Your task to perform on an android device: turn notification dots on Image 0: 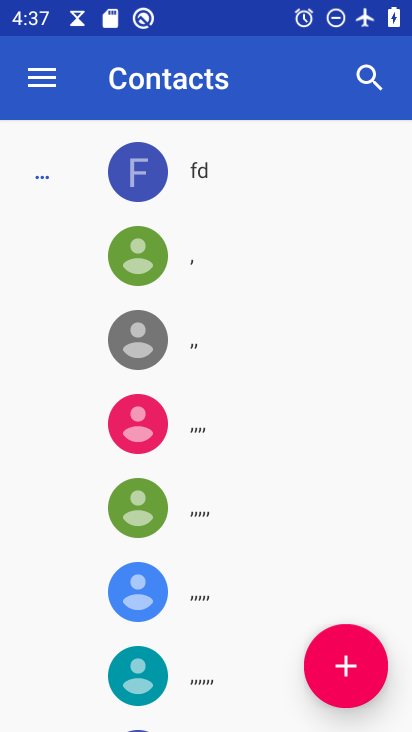
Step 0: press home button
Your task to perform on an android device: turn notification dots on Image 1: 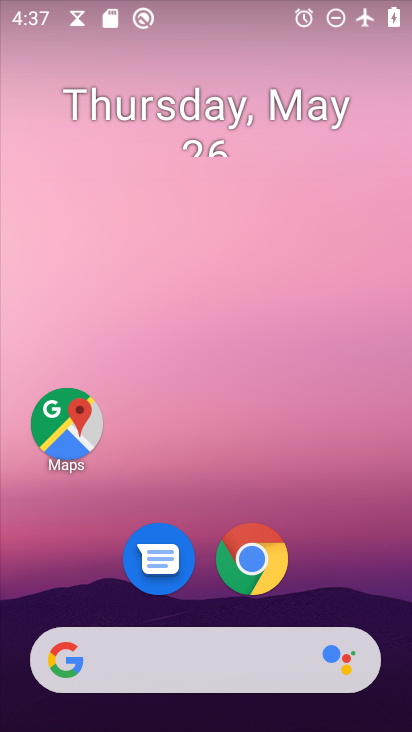
Step 1: drag from (339, 561) to (237, 11)
Your task to perform on an android device: turn notification dots on Image 2: 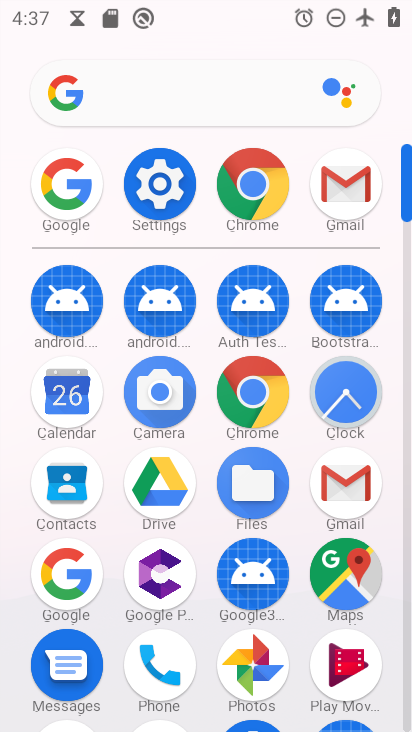
Step 2: click (158, 172)
Your task to perform on an android device: turn notification dots on Image 3: 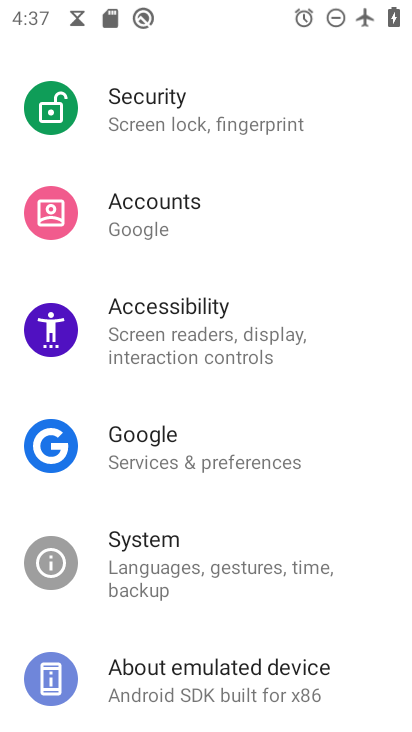
Step 3: drag from (288, 202) to (217, 637)
Your task to perform on an android device: turn notification dots on Image 4: 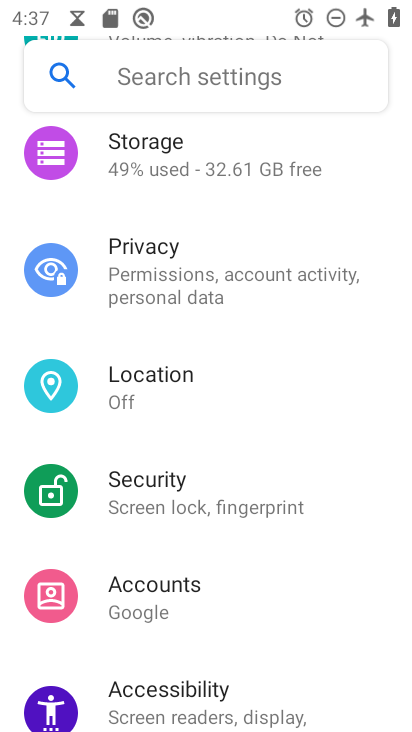
Step 4: drag from (262, 181) to (227, 599)
Your task to perform on an android device: turn notification dots on Image 5: 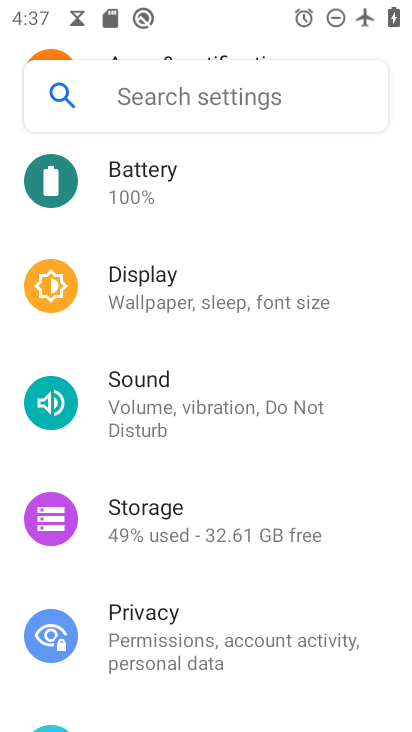
Step 5: drag from (238, 207) to (186, 654)
Your task to perform on an android device: turn notification dots on Image 6: 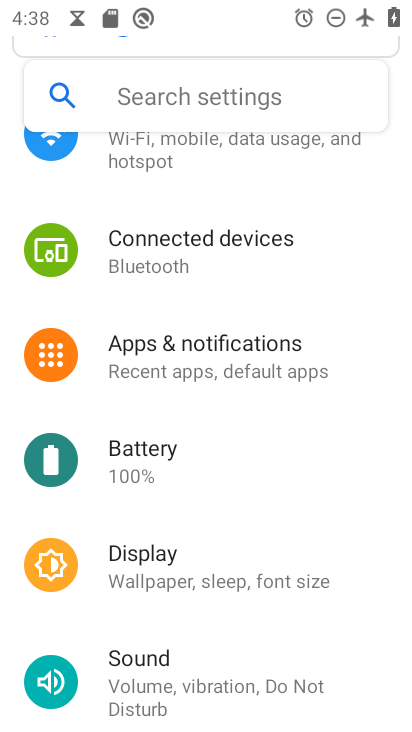
Step 6: click (225, 371)
Your task to perform on an android device: turn notification dots on Image 7: 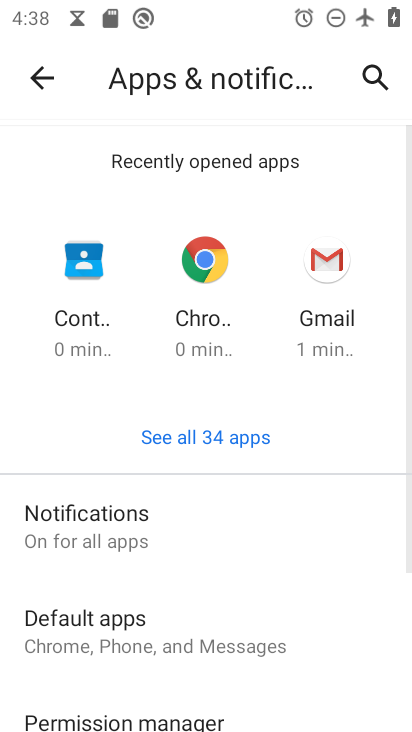
Step 7: click (197, 531)
Your task to perform on an android device: turn notification dots on Image 8: 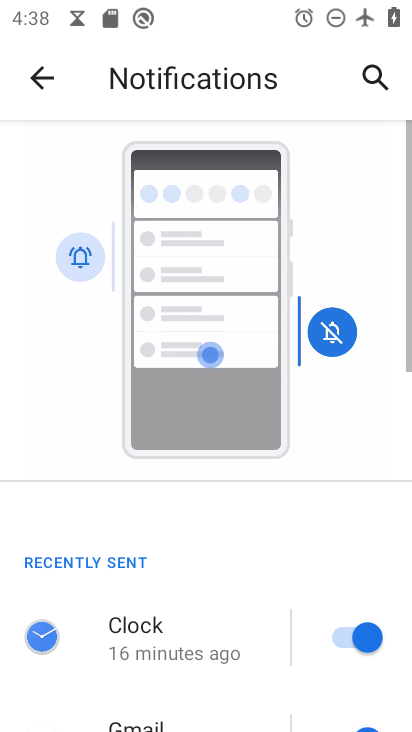
Step 8: drag from (271, 654) to (196, 27)
Your task to perform on an android device: turn notification dots on Image 9: 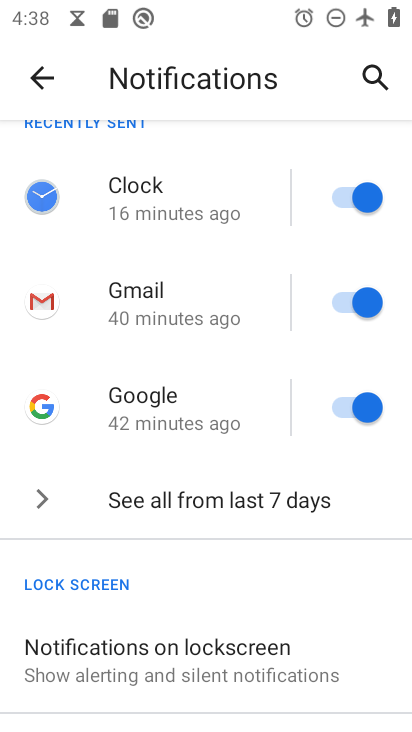
Step 9: drag from (224, 573) to (217, 75)
Your task to perform on an android device: turn notification dots on Image 10: 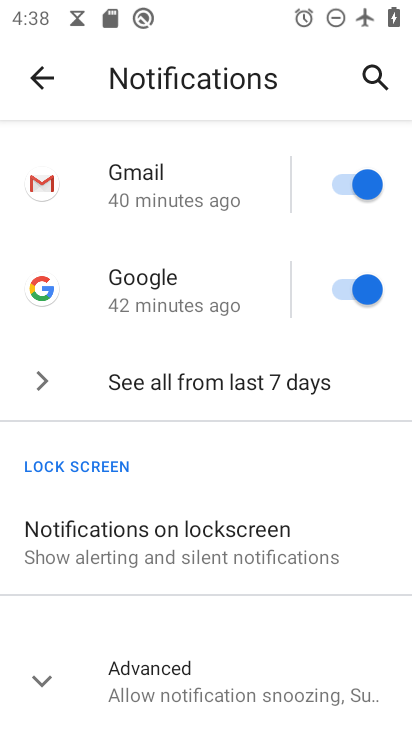
Step 10: click (197, 673)
Your task to perform on an android device: turn notification dots on Image 11: 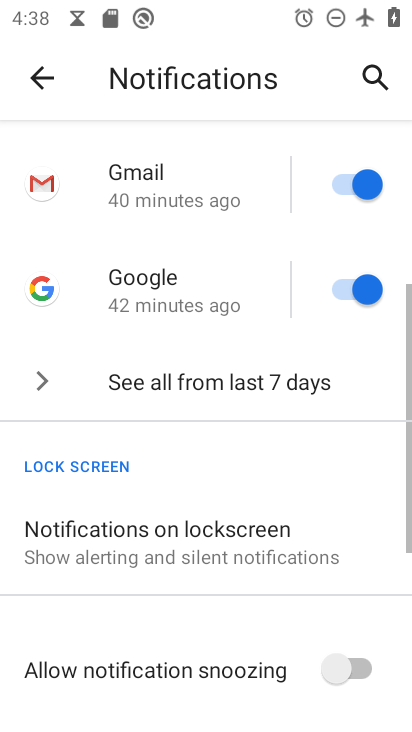
Step 11: task complete